Your task to perform on an android device: turn on translation in the chrome app Image 0: 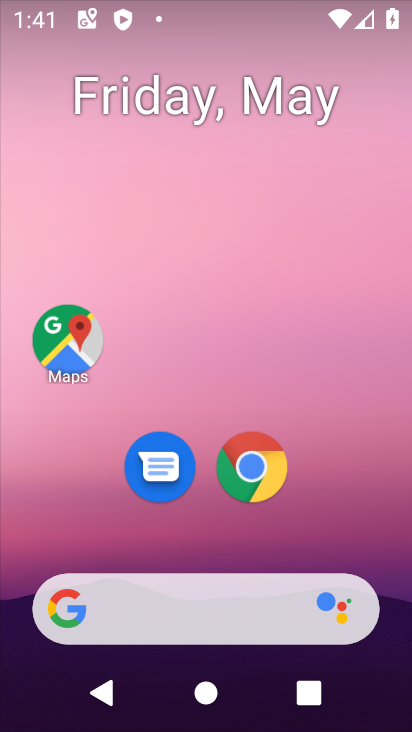
Step 0: drag from (337, 467) to (188, 9)
Your task to perform on an android device: turn on translation in the chrome app Image 1: 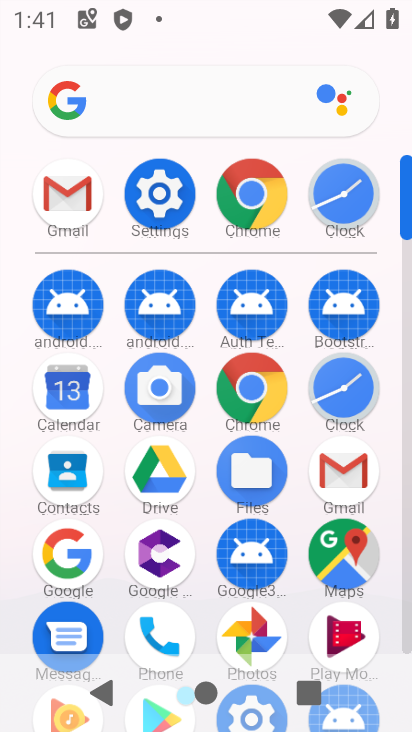
Step 1: click (255, 188)
Your task to perform on an android device: turn on translation in the chrome app Image 2: 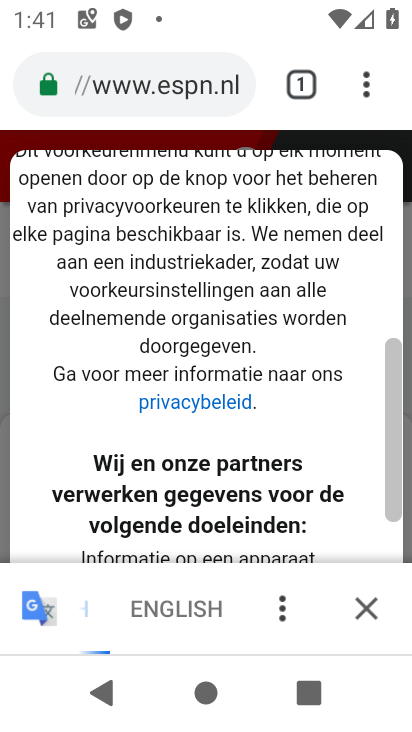
Step 2: drag from (368, 80) to (181, 521)
Your task to perform on an android device: turn on translation in the chrome app Image 3: 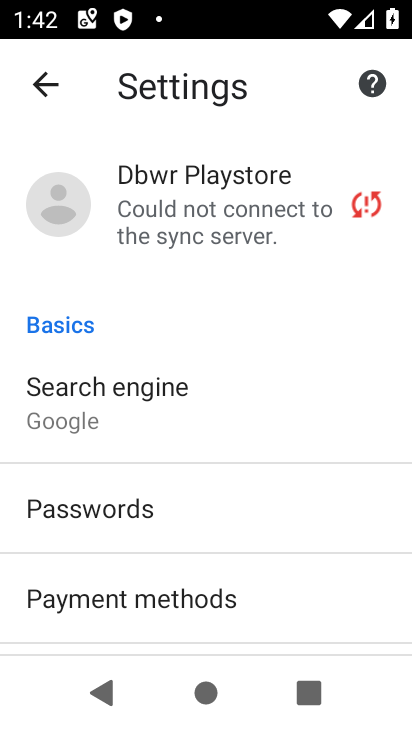
Step 3: drag from (156, 487) to (125, 160)
Your task to perform on an android device: turn on translation in the chrome app Image 4: 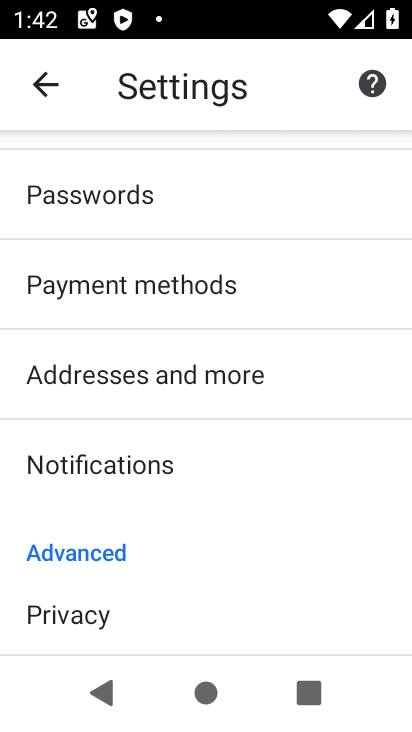
Step 4: drag from (186, 566) to (200, 173)
Your task to perform on an android device: turn on translation in the chrome app Image 5: 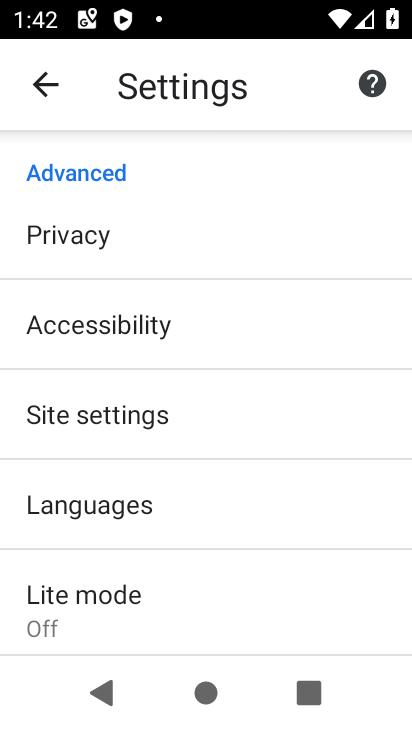
Step 5: click (168, 513)
Your task to perform on an android device: turn on translation in the chrome app Image 6: 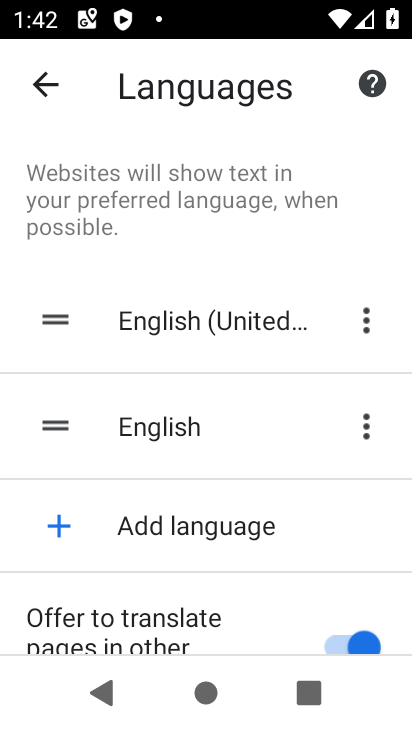
Step 6: task complete